Your task to perform on an android device: add a label to a message in the gmail app Image 0: 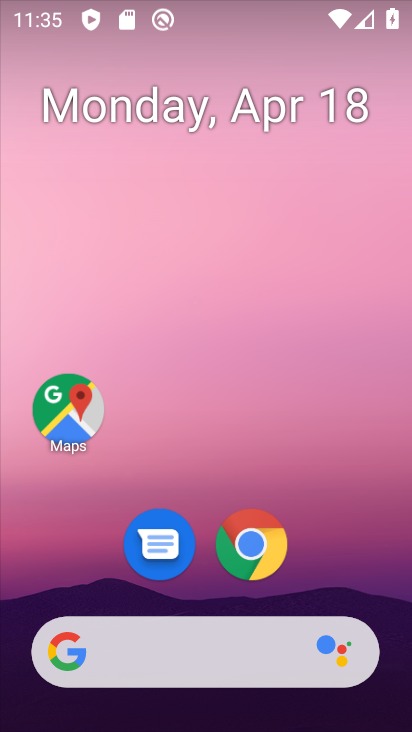
Step 0: drag from (326, 613) to (345, 32)
Your task to perform on an android device: add a label to a message in the gmail app Image 1: 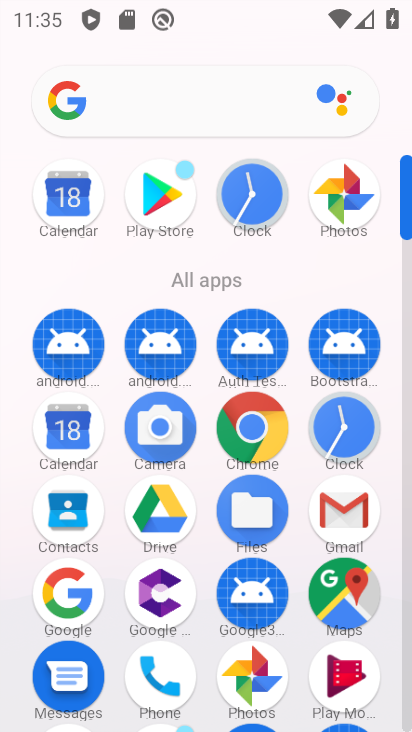
Step 1: click (342, 513)
Your task to perform on an android device: add a label to a message in the gmail app Image 2: 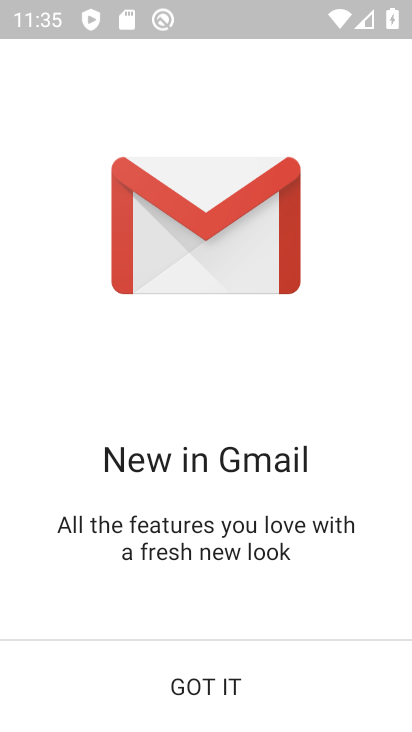
Step 2: click (205, 682)
Your task to perform on an android device: add a label to a message in the gmail app Image 3: 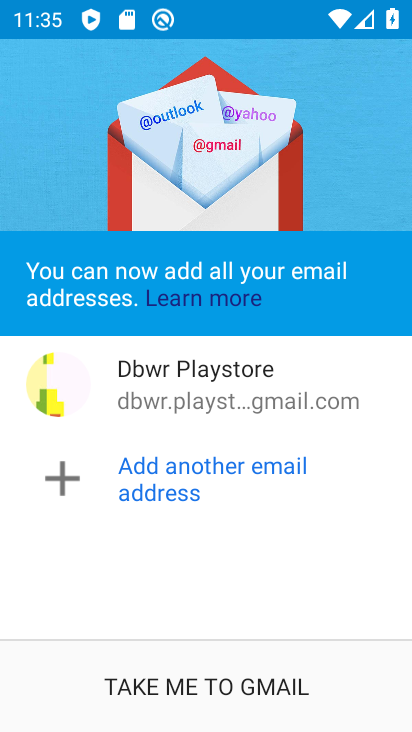
Step 3: click (215, 687)
Your task to perform on an android device: add a label to a message in the gmail app Image 4: 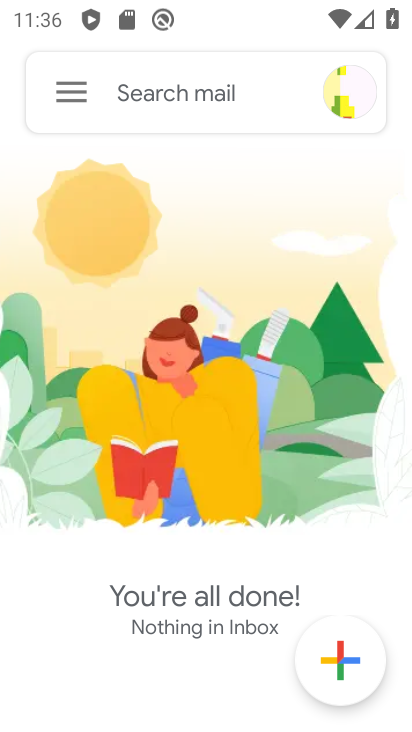
Step 4: click (64, 97)
Your task to perform on an android device: add a label to a message in the gmail app Image 5: 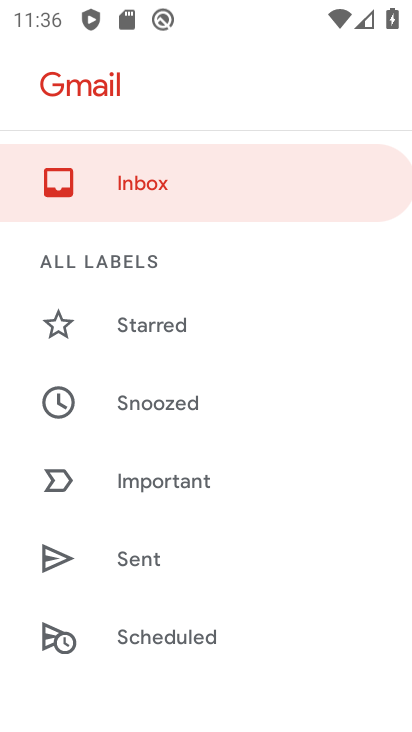
Step 5: drag from (232, 501) to (247, 290)
Your task to perform on an android device: add a label to a message in the gmail app Image 6: 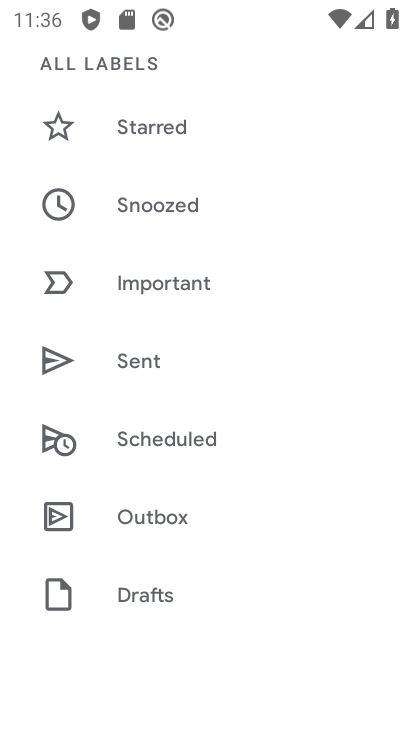
Step 6: drag from (243, 558) to (257, 221)
Your task to perform on an android device: add a label to a message in the gmail app Image 7: 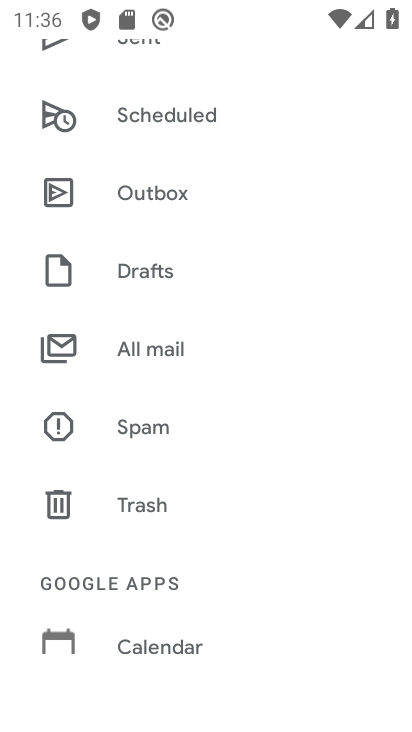
Step 7: click (141, 349)
Your task to perform on an android device: add a label to a message in the gmail app Image 8: 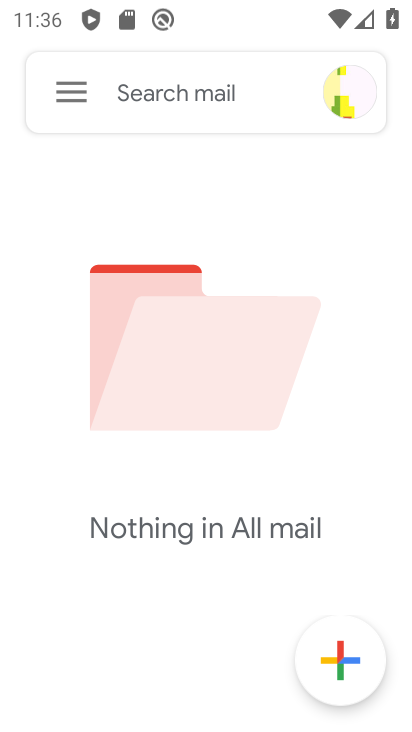
Step 8: click (82, 87)
Your task to perform on an android device: add a label to a message in the gmail app Image 9: 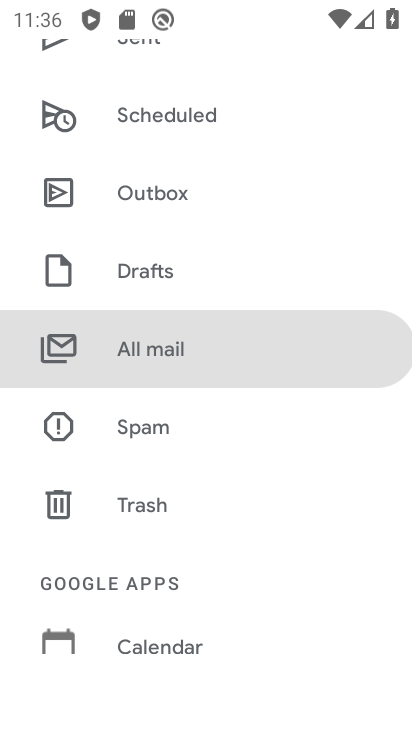
Step 9: task complete